Your task to perform on an android device: remove spam from my inbox in the gmail app Image 0: 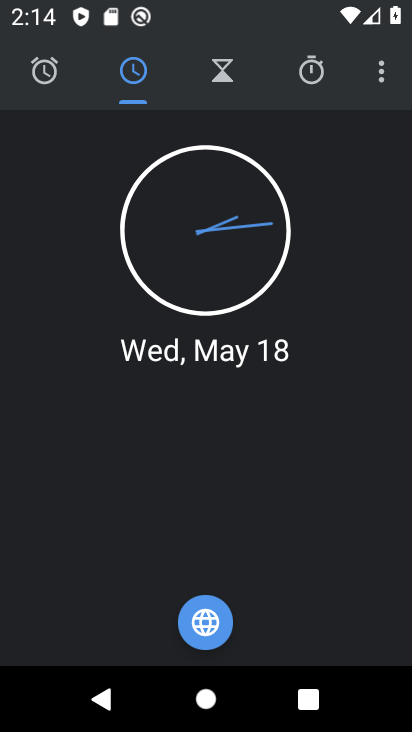
Step 0: press home button
Your task to perform on an android device: remove spam from my inbox in the gmail app Image 1: 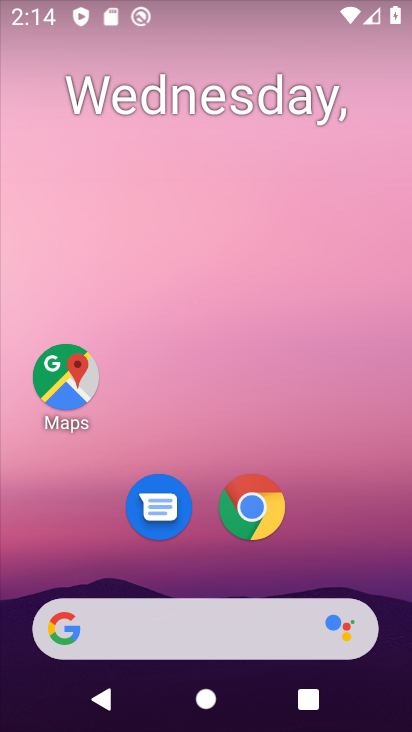
Step 1: drag from (318, 558) to (309, 74)
Your task to perform on an android device: remove spam from my inbox in the gmail app Image 2: 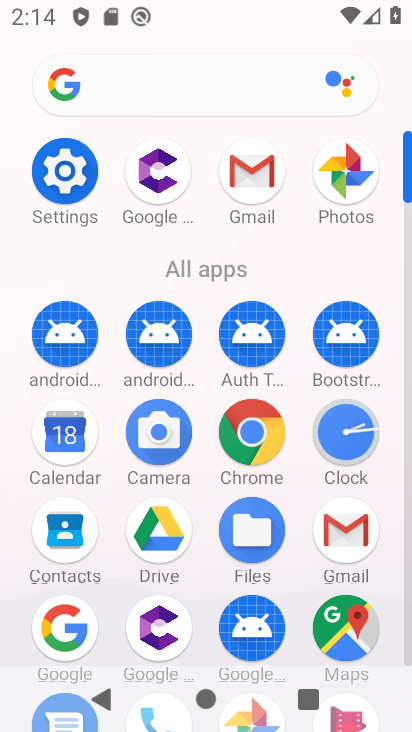
Step 2: click (233, 180)
Your task to perform on an android device: remove spam from my inbox in the gmail app Image 3: 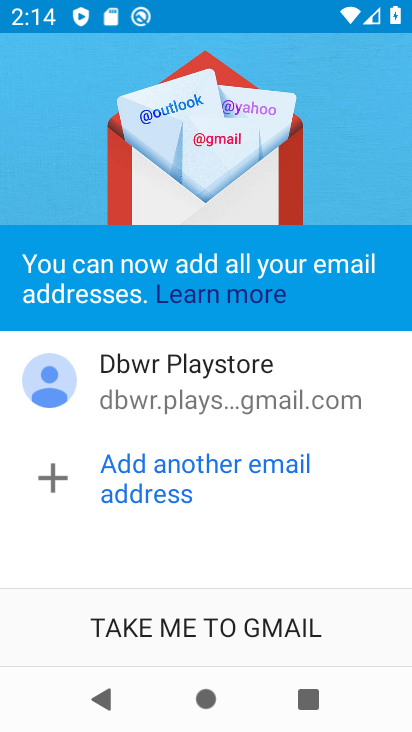
Step 3: click (257, 631)
Your task to perform on an android device: remove spam from my inbox in the gmail app Image 4: 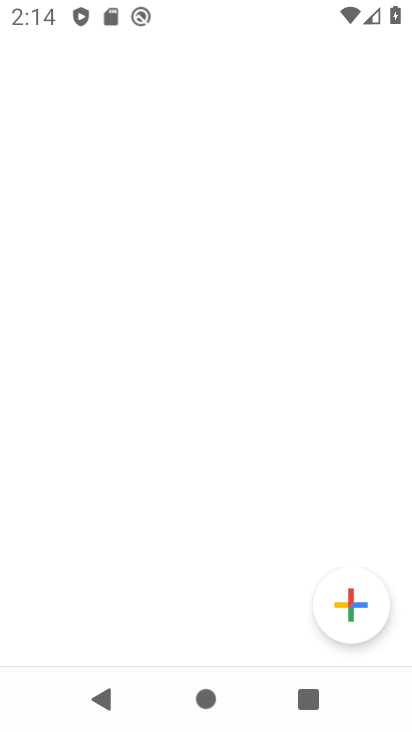
Step 4: click (257, 631)
Your task to perform on an android device: remove spam from my inbox in the gmail app Image 5: 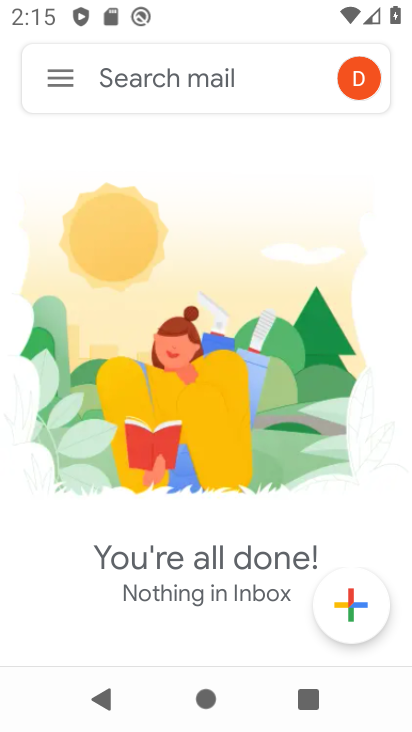
Step 5: click (50, 69)
Your task to perform on an android device: remove spam from my inbox in the gmail app Image 6: 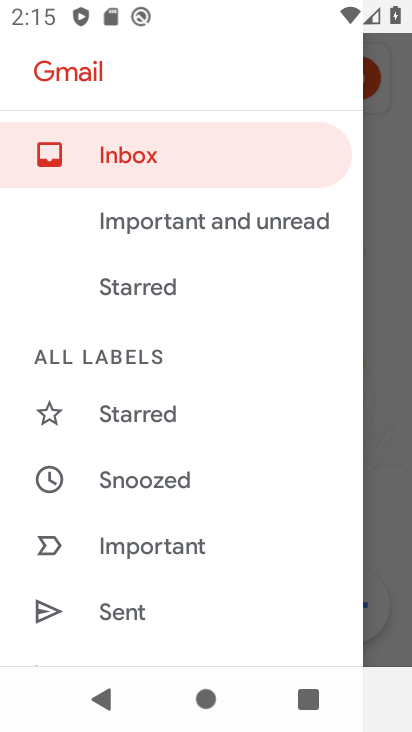
Step 6: drag from (205, 575) to (270, 184)
Your task to perform on an android device: remove spam from my inbox in the gmail app Image 7: 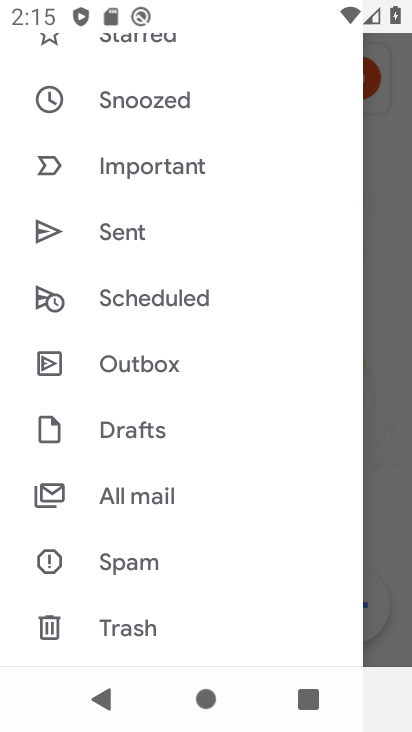
Step 7: click (92, 563)
Your task to perform on an android device: remove spam from my inbox in the gmail app Image 8: 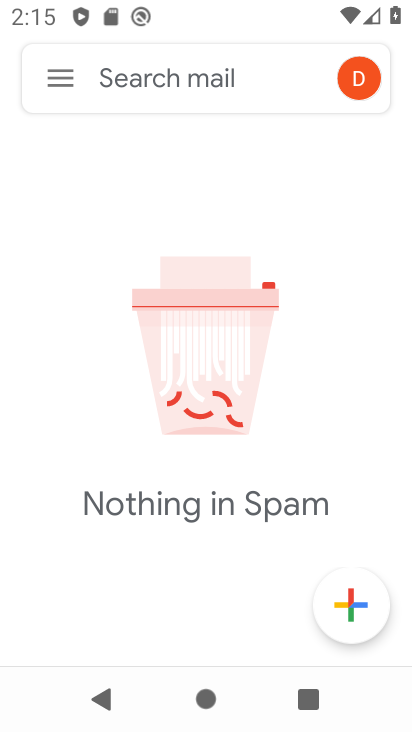
Step 8: task complete